Your task to perform on an android device: turn on translation in the chrome app Image 0: 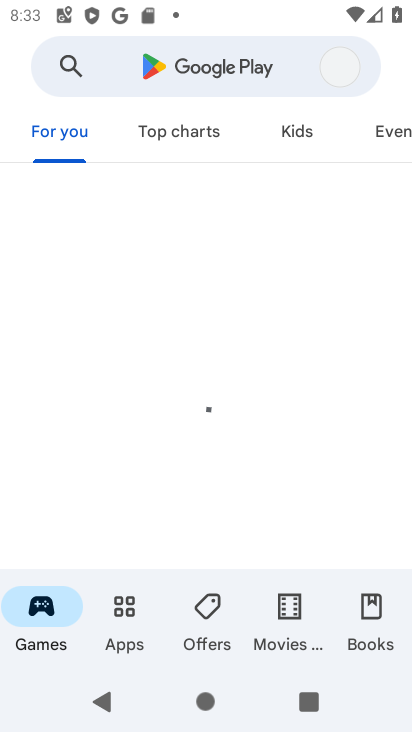
Step 0: press home button
Your task to perform on an android device: turn on translation in the chrome app Image 1: 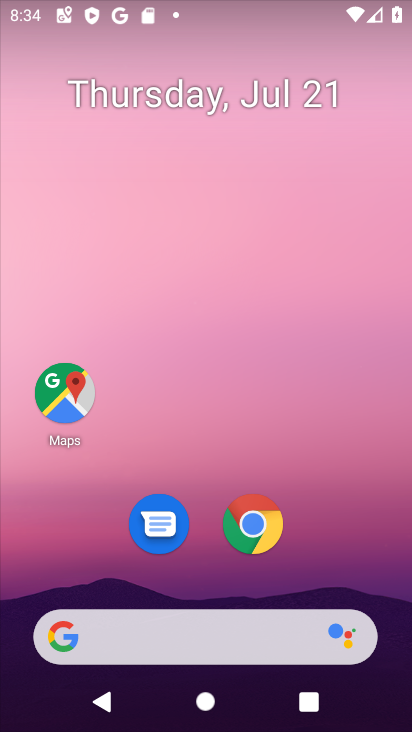
Step 1: click (252, 538)
Your task to perform on an android device: turn on translation in the chrome app Image 2: 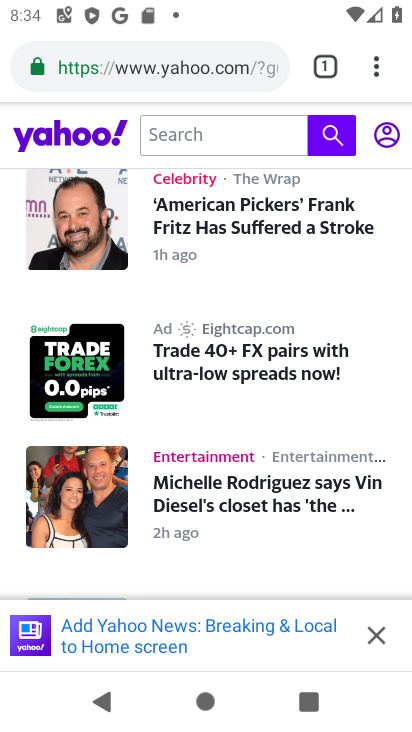
Step 2: drag from (378, 59) to (252, 528)
Your task to perform on an android device: turn on translation in the chrome app Image 3: 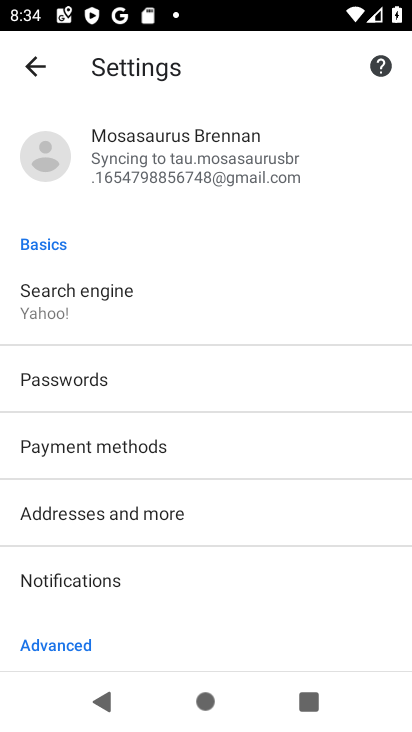
Step 3: drag from (229, 493) to (331, 149)
Your task to perform on an android device: turn on translation in the chrome app Image 4: 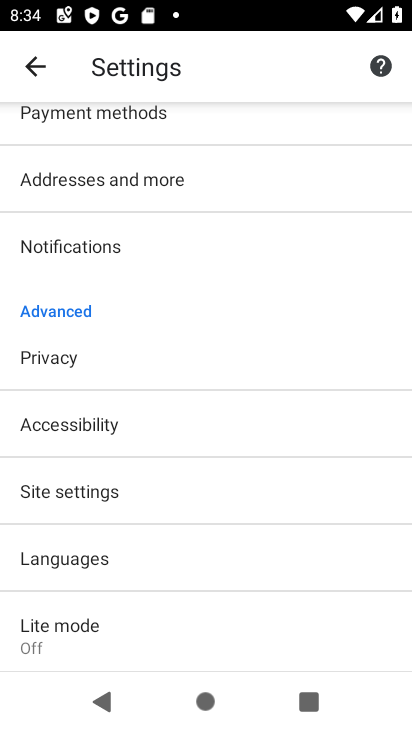
Step 4: click (83, 550)
Your task to perform on an android device: turn on translation in the chrome app Image 5: 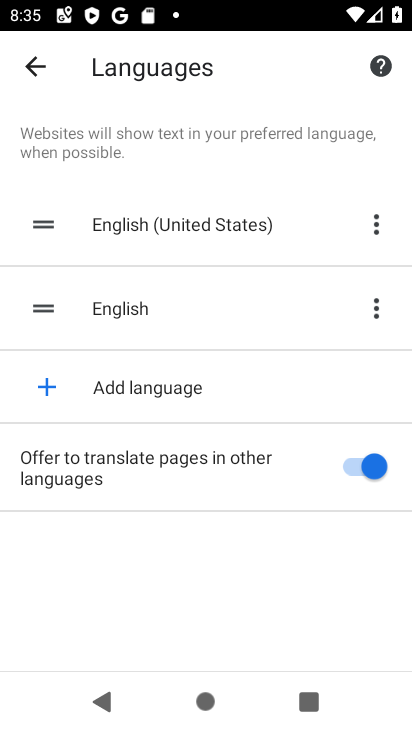
Step 5: task complete